Your task to perform on an android device: Search for pizza restaurants on Maps Image 0: 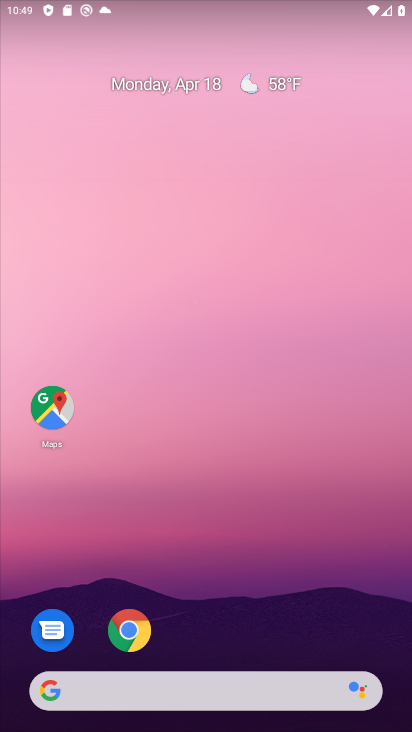
Step 0: click (43, 409)
Your task to perform on an android device: Search for pizza restaurants on Maps Image 1: 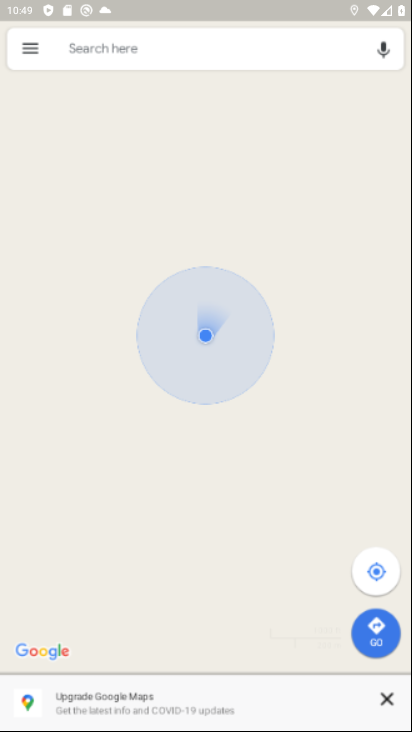
Step 1: click (213, 50)
Your task to perform on an android device: Search for pizza restaurants on Maps Image 2: 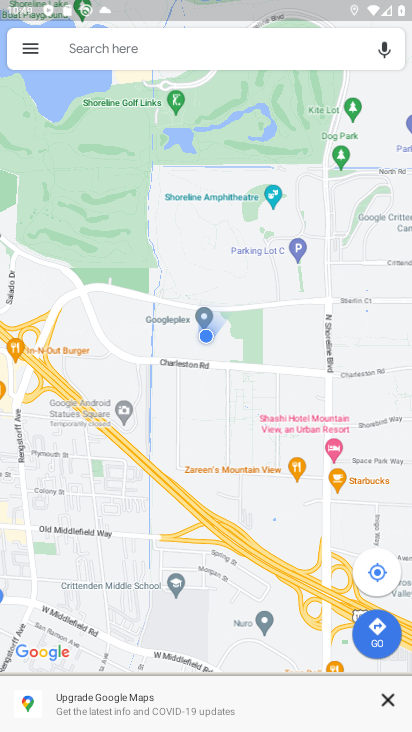
Step 2: click (133, 44)
Your task to perform on an android device: Search for pizza restaurants on Maps Image 3: 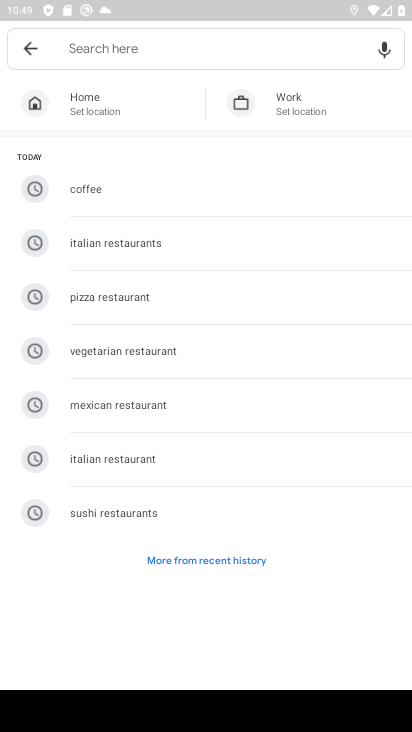
Step 3: type "pizza restaurants"
Your task to perform on an android device: Search for pizza restaurants on Maps Image 4: 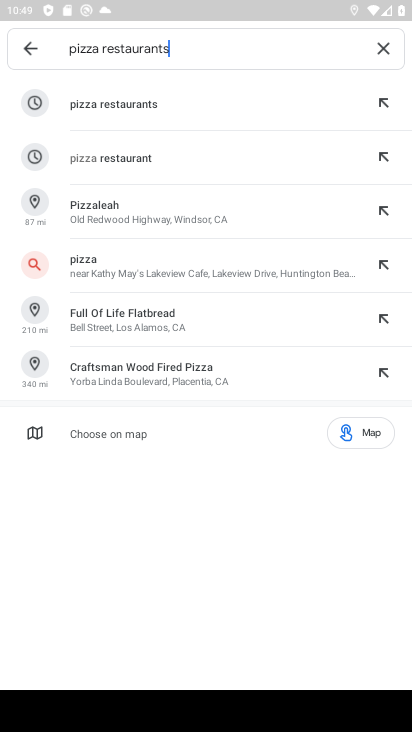
Step 4: task complete